Your task to perform on an android device: Toggle the flashlight Image 0: 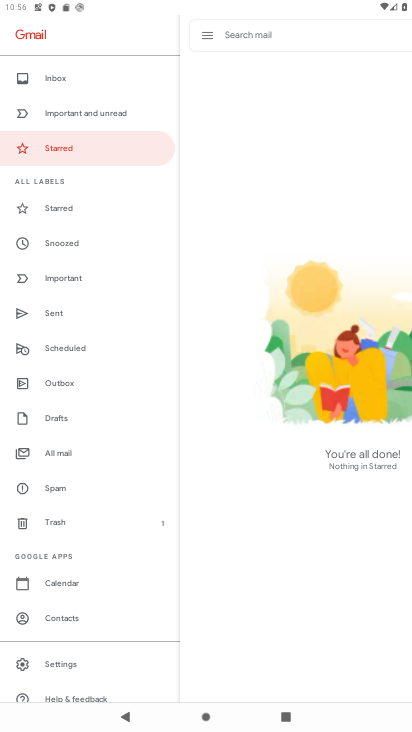
Step 0: click (79, 663)
Your task to perform on an android device: Toggle the flashlight Image 1: 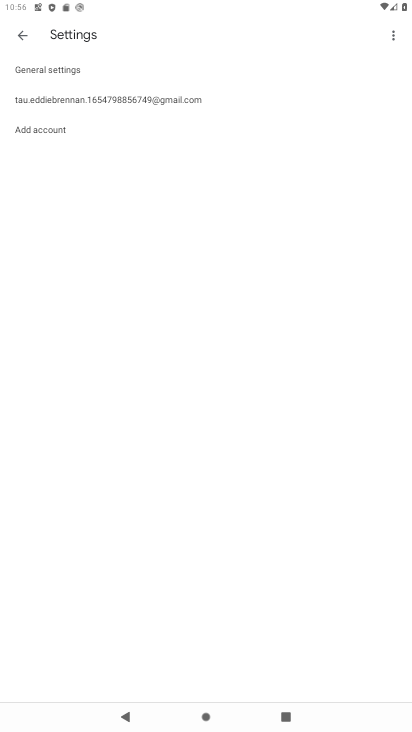
Step 1: press home button
Your task to perform on an android device: Toggle the flashlight Image 2: 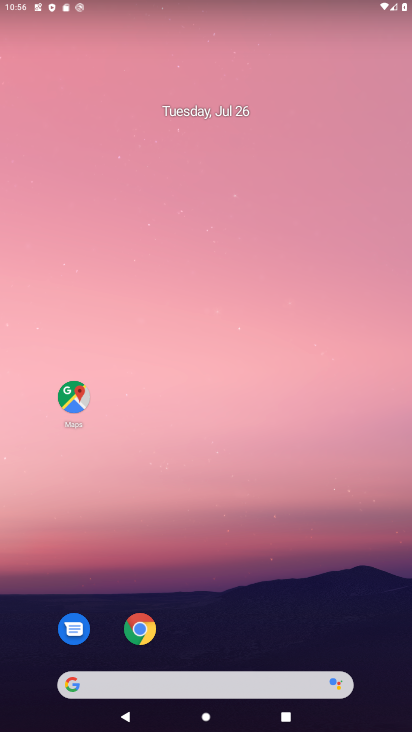
Step 2: drag from (276, 632) to (266, 153)
Your task to perform on an android device: Toggle the flashlight Image 3: 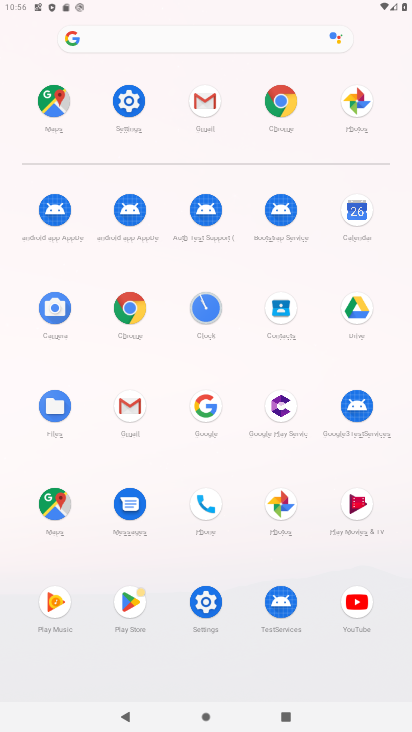
Step 3: click (140, 104)
Your task to perform on an android device: Toggle the flashlight Image 4: 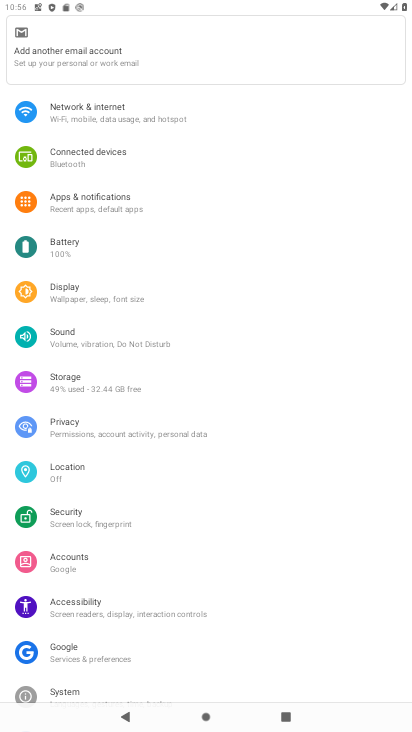
Step 4: task complete